Your task to perform on an android device: check android version Image 0: 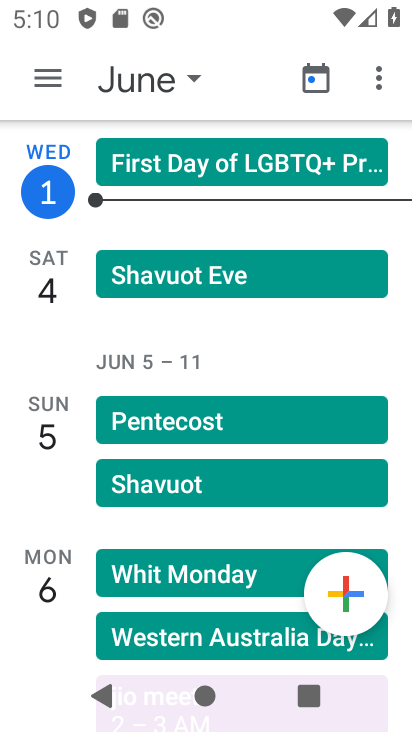
Step 0: press home button
Your task to perform on an android device: check android version Image 1: 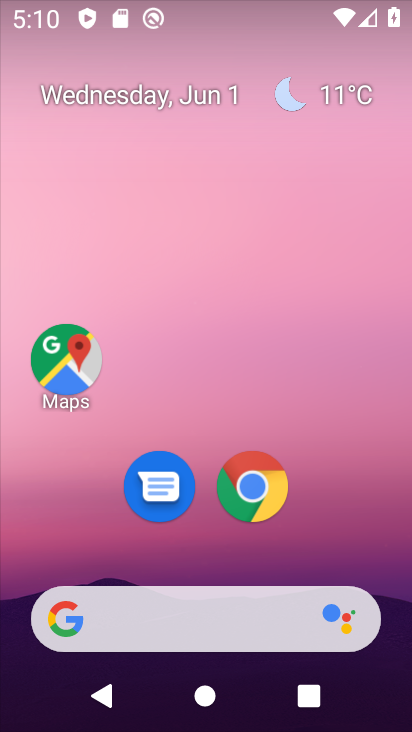
Step 1: drag from (134, 603) to (218, 68)
Your task to perform on an android device: check android version Image 2: 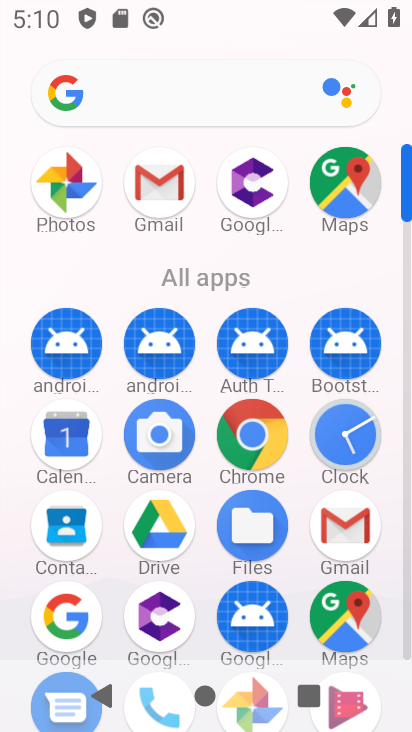
Step 2: drag from (95, 659) to (197, 297)
Your task to perform on an android device: check android version Image 3: 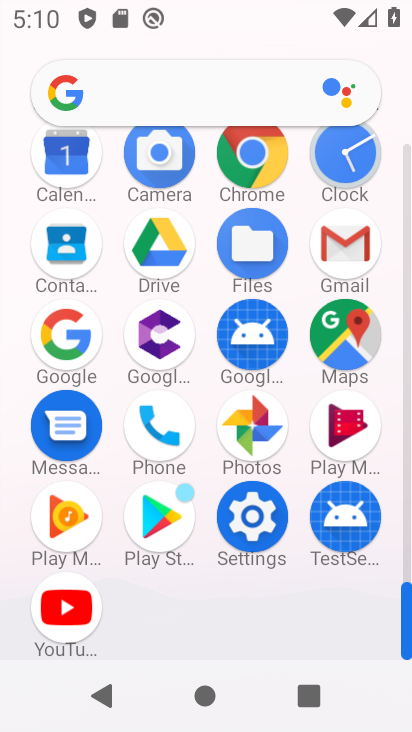
Step 3: click (247, 529)
Your task to perform on an android device: check android version Image 4: 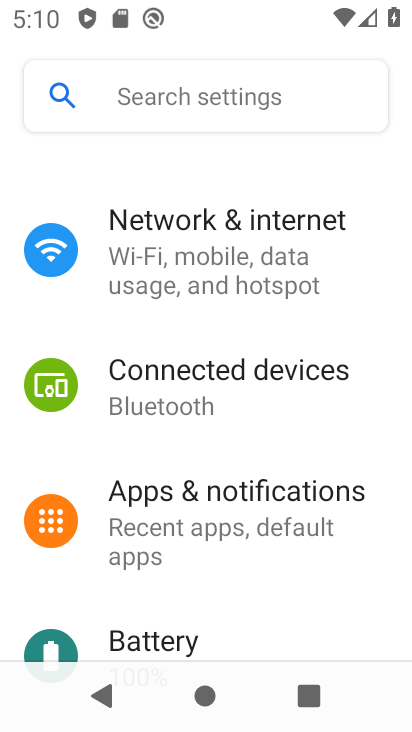
Step 4: drag from (199, 595) to (291, 135)
Your task to perform on an android device: check android version Image 5: 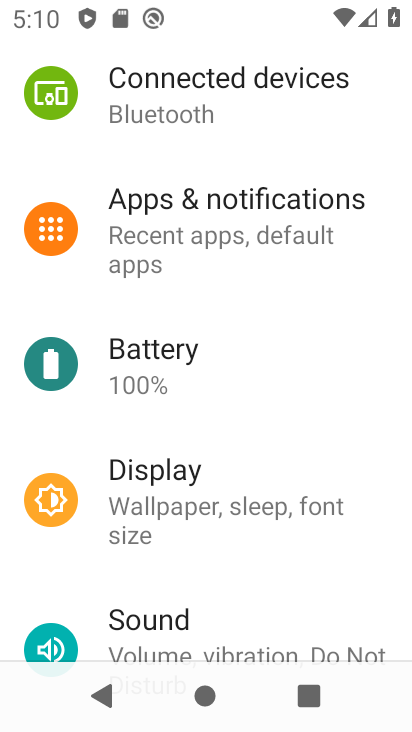
Step 5: drag from (184, 551) to (280, 144)
Your task to perform on an android device: check android version Image 6: 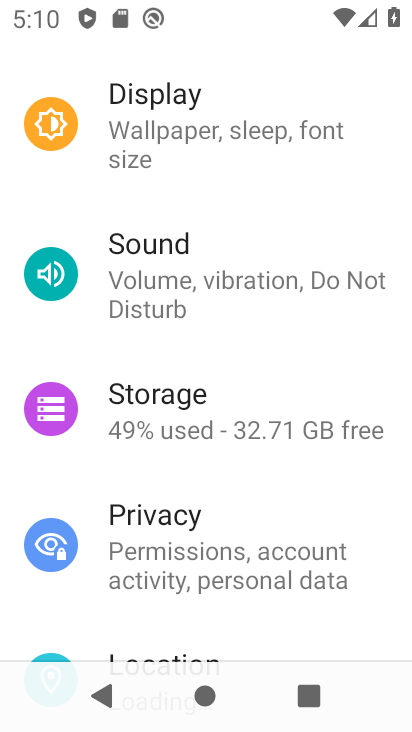
Step 6: drag from (128, 595) to (266, 49)
Your task to perform on an android device: check android version Image 7: 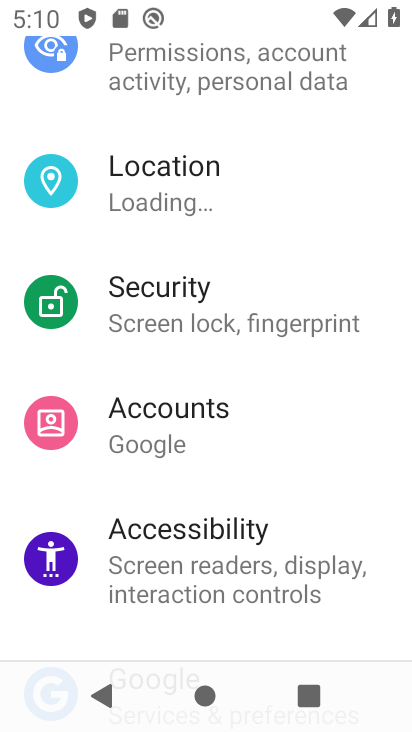
Step 7: drag from (247, 565) to (322, 85)
Your task to perform on an android device: check android version Image 8: 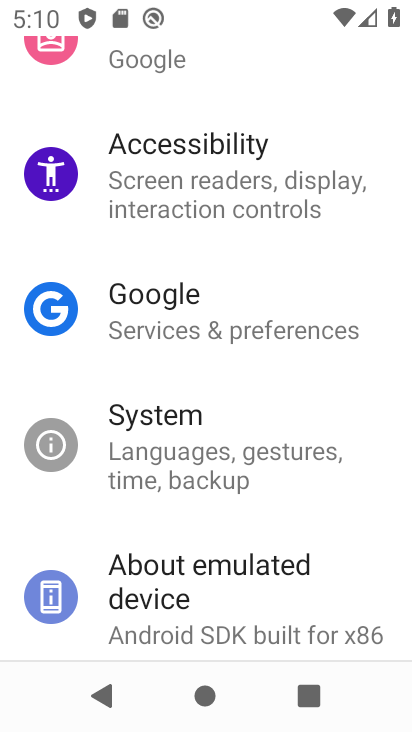
Step 8: click (193, 607)
Your task to perform on an android device: check android version Image 9: 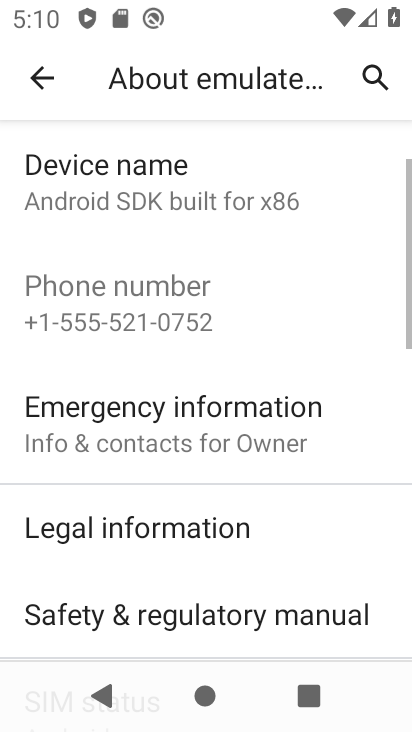
Step 9: drag from (199, 528) to (310, 156)
Your task to perform on an android device: check android version Image 10: 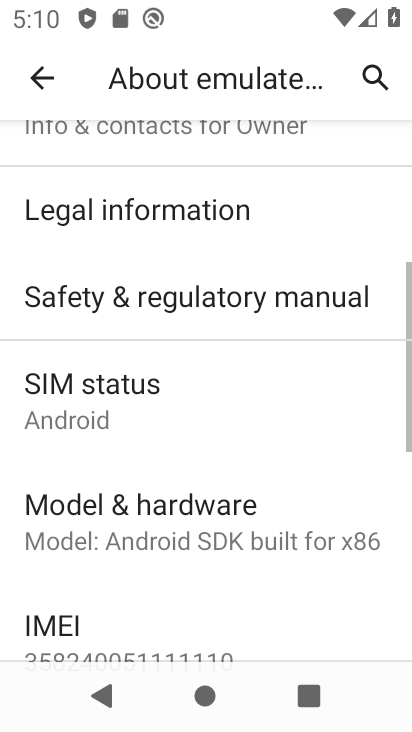
Step 10: drag from (192, 514) to (283, 176)
Your task to perform on an android device: check android version Image 11: 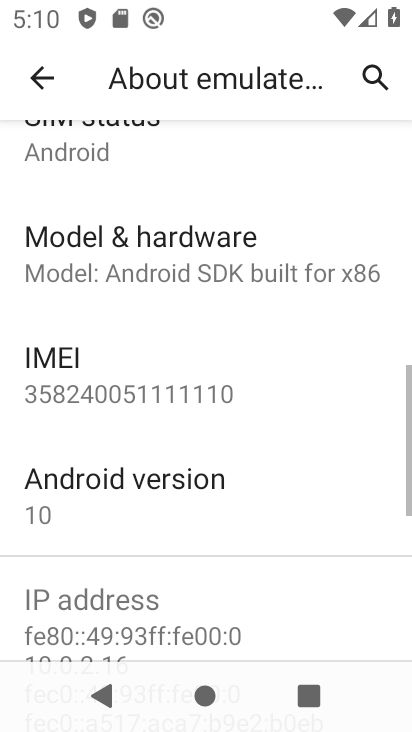
Step 11: click (154, 503)
Your task to perform on an android device: check android version Image 12: 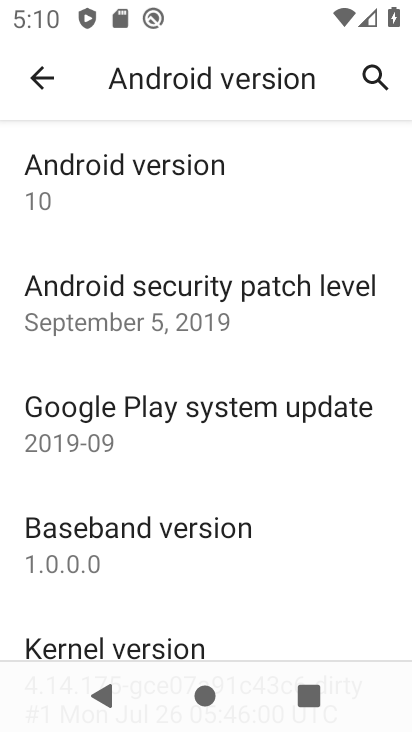
Step 12: click (243, 179)
Your task to perform on an android device: check android version Image 13: 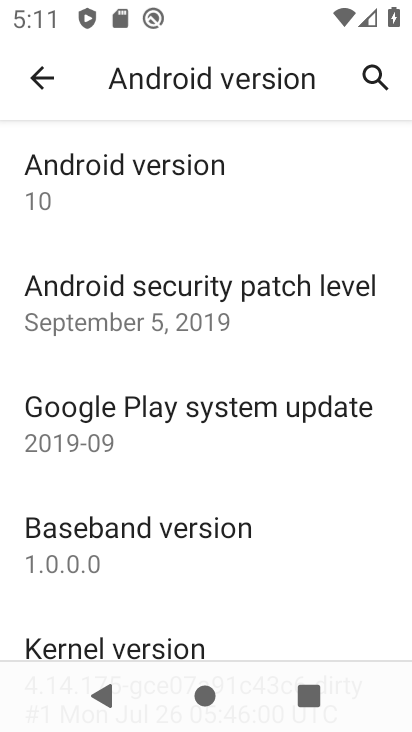
Step 13: click (241, 180)
Your task to perform on an android device: check android version Image 14: 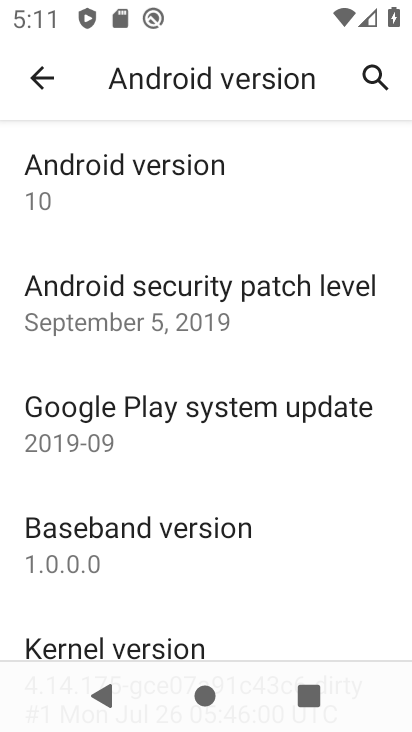
Step 14: task complete